Your task to perform on an android device: Open wifi settings Image 0: 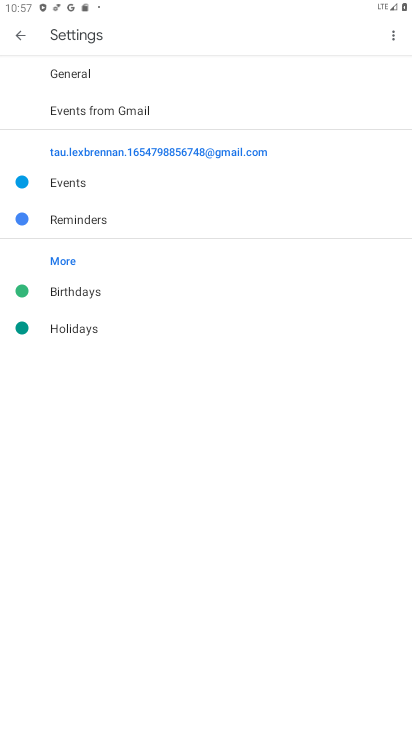
Step 0: press home button
Your task to perform on an android device: Open wifi settings Image 1: 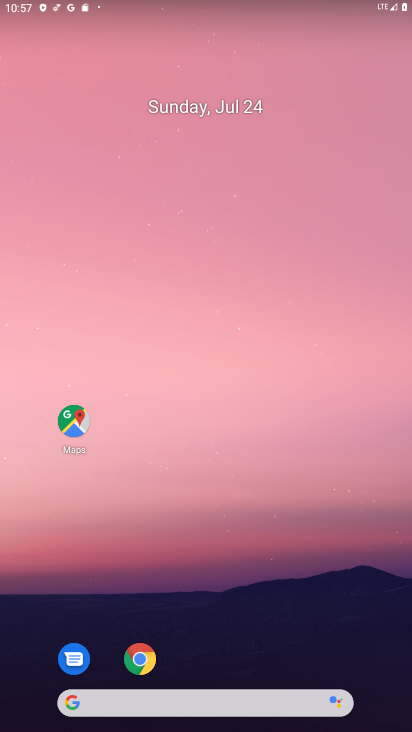
Step 1: drag from (236, 656) to (211, 17)
Your task to perform on an android device: Open wifi settings Image 2: 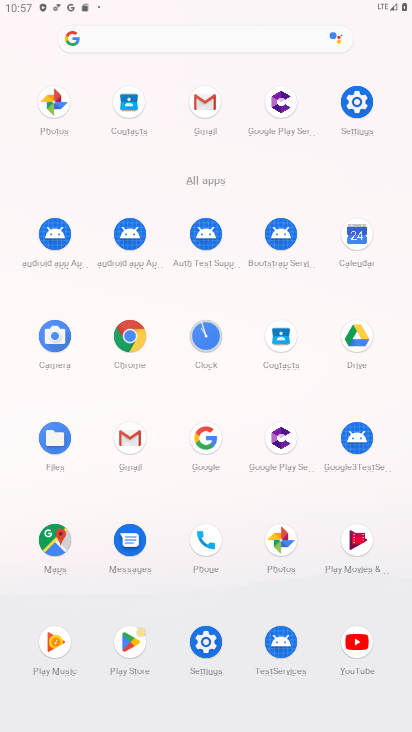
Step 2: click (355, 116)
Your task to perform on an android device: Open wifi settings Image 3: 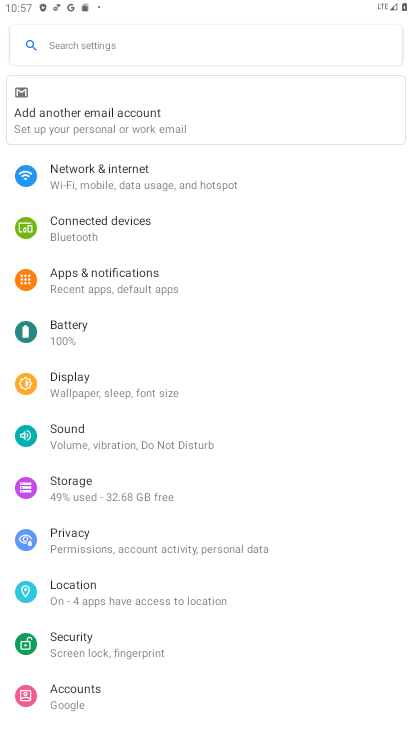
Step 3: click (213, 191)
Your task to perform on an android device: Open wifi settings Image 4: 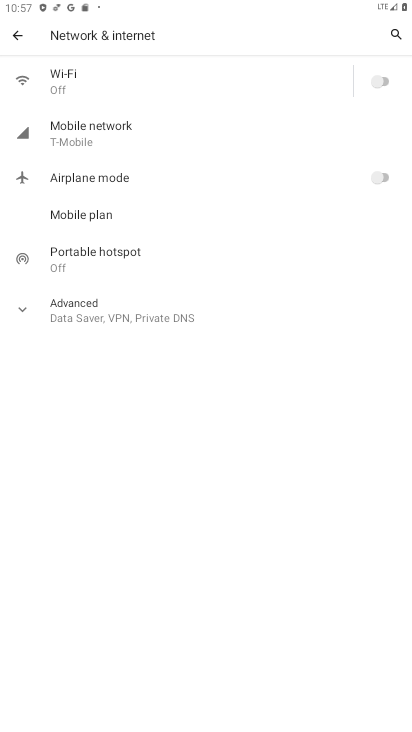
Step 4: click (133, 88)
Your task to perform on an android device: Open wifi settings Image 5: 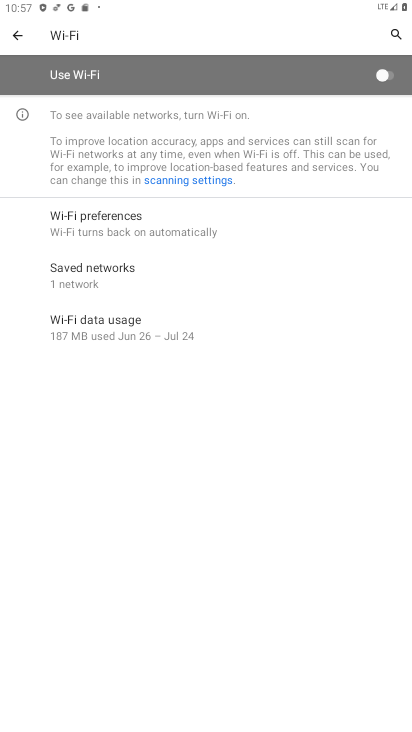
Step 5: task complete